Your task to perform on an android device: turn on improve location accuracy Image 0: 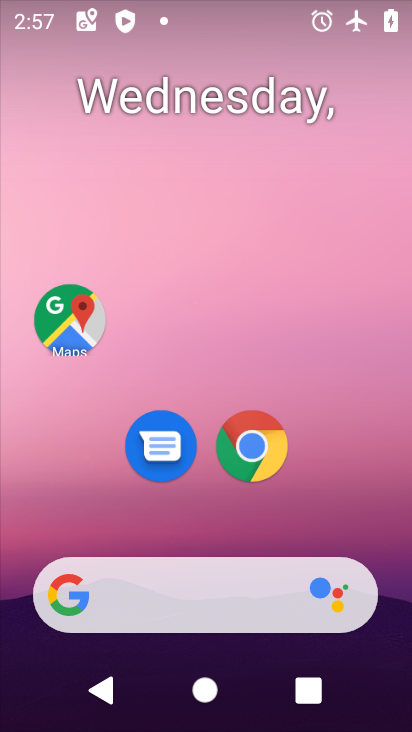
Step 0: drag from (190, 532) to (190, 156)
Your task to perform on an android device: turn on improve location accuracy Image 1: 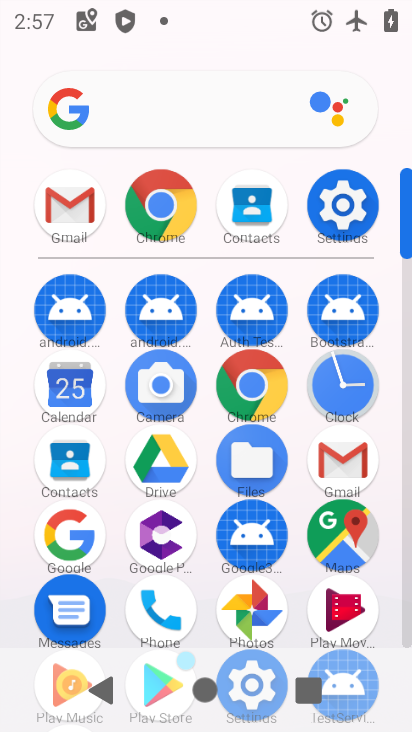
Step 1: click (326, 209)
Your task to perform on an android device: turn on improve location accuracy Image 2: 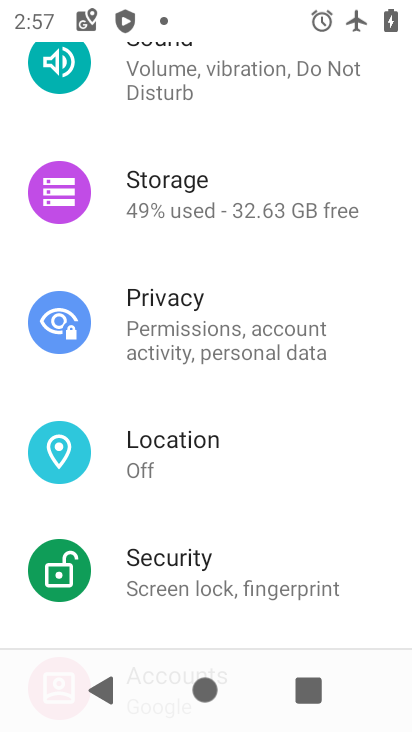
Step 2: click (243, 470)
Your task to perform on an android device: turn on improve location accuracy Image 3: 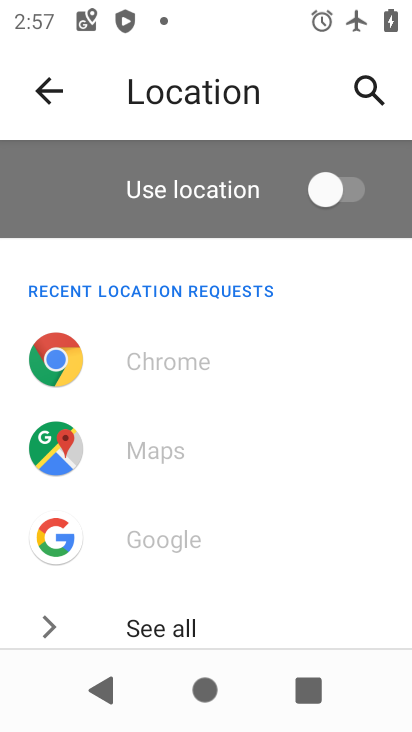
Step 3: drag from (253, 557) to (324, 243)
Your task to perform on an android device: turn on improve location accuracy Image 4: 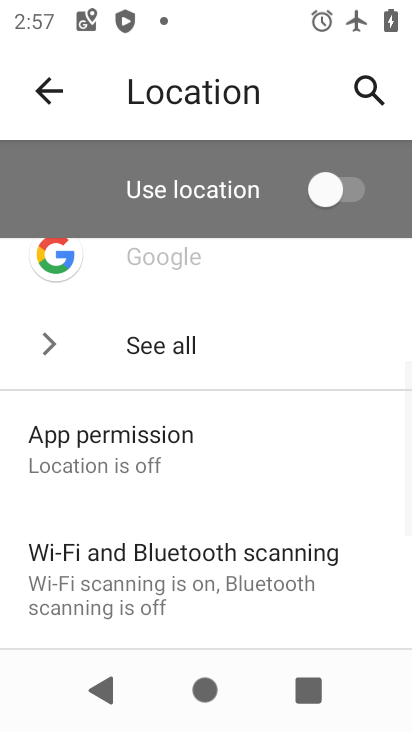
Step 4: drag from (277, 516) to (337, 275)
Your task to perform on an android device: turn on improve location accuracy Image 5: 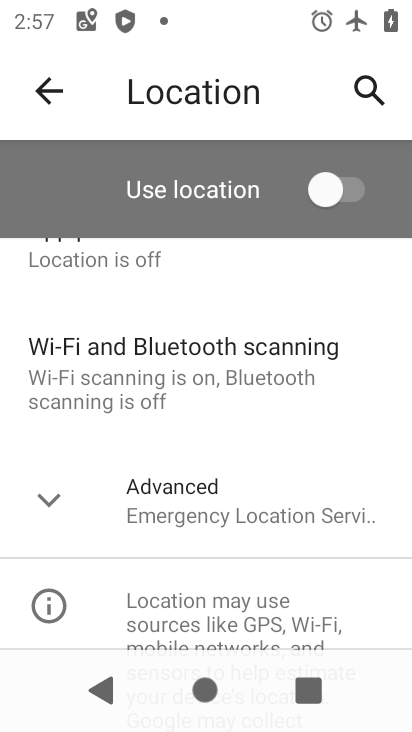
Step 5: drag from (281, 572) to (317, 349)
Your task to perform on an android device: turn on improve location accuracy Image 6: 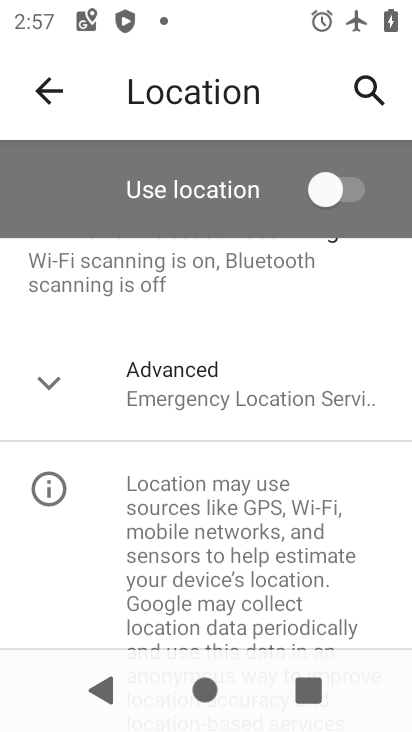
Step 6: drag from (227, 587) to (295, 313)
Your task to perform on an android device: turn on improve location accuracy Image 7: 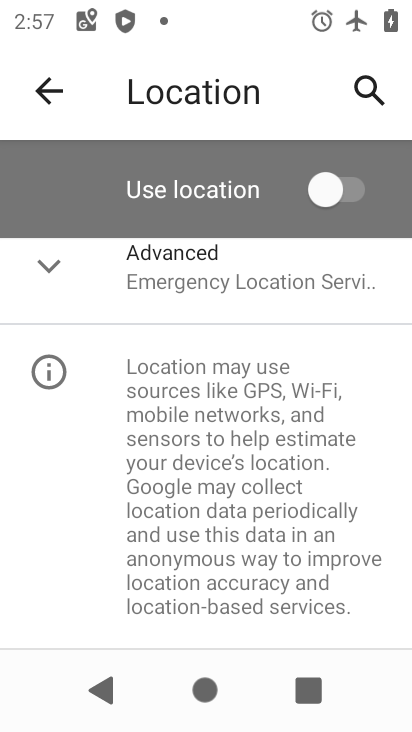
Step 7: drag from (267, 519) to (294, 290)
Your task to perform on an android device: turn on improve location accuracy Image 8: 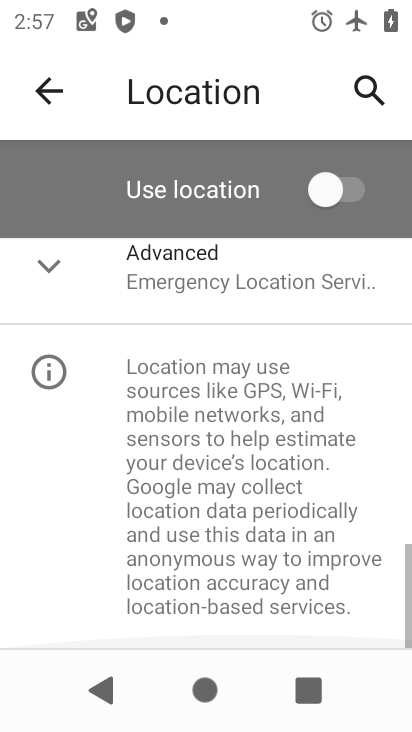
Step 8: drag from (286, 293) to (259, 590)
Your task to perform on an android device: turn on improve location accuracy Image 9: 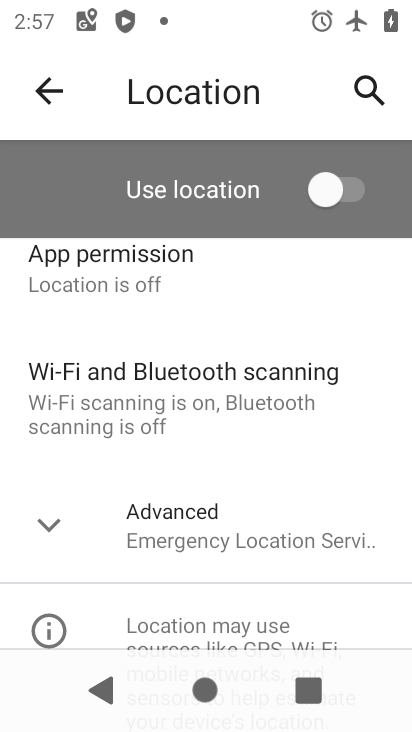
Step 9: click (251, 565)
Your task to perform on an android device: turn on improve location accuracy Image 10: 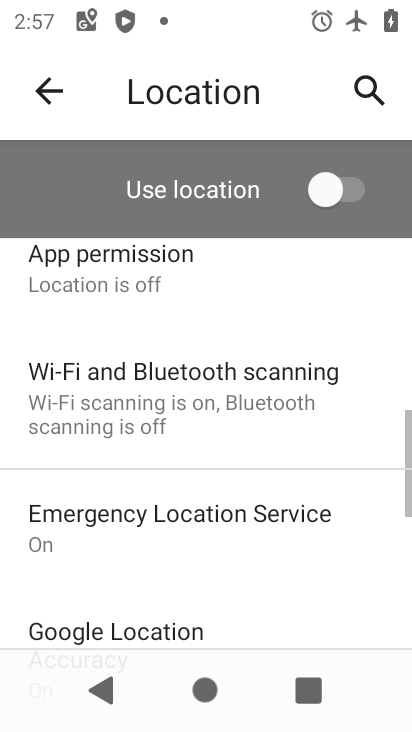
Step 10: drag from (274, 571) to (299, 337)
Your task to perform on an android device: turn on improve location accuracy Image 11: 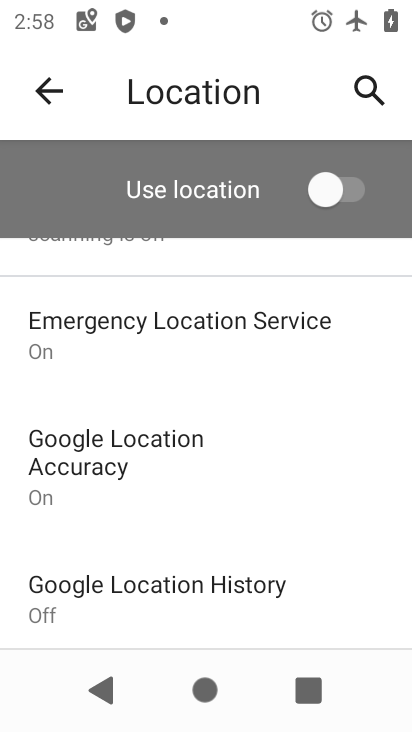
Step 11: click (191, 456)
Your task to perform on an android device: turn on improve location accuracy Image 12: 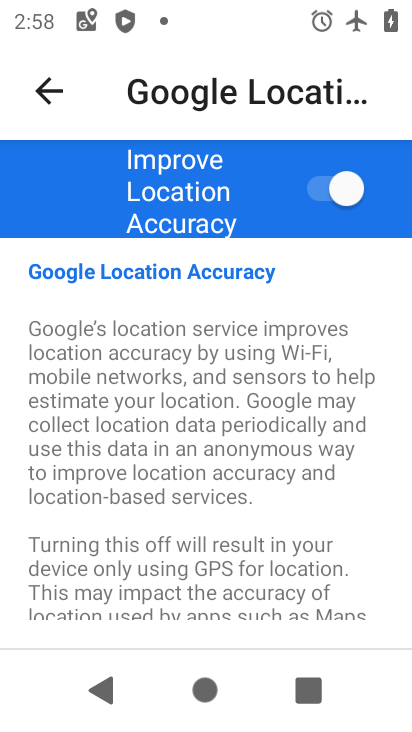
Step 12: task complete